Your task to perform on an android device: Search for Italian restaurants on Maps Image 0: 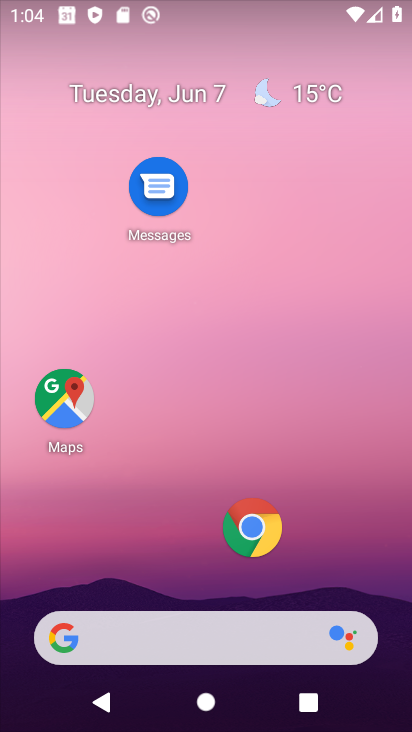
Step 0: click (65, 399)
Your task to perform on an android device: Search for Italian restaurants on Maps Image 1: 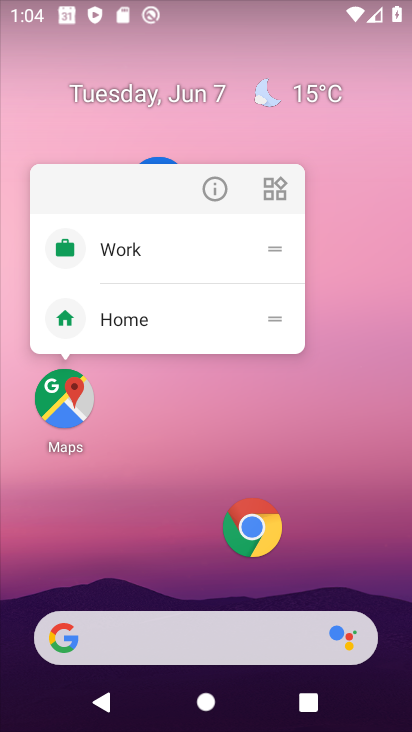
Step 1: click (65, 399)
Your task to perform on an android device: Search for Italian restaurants on Maps Image 2: 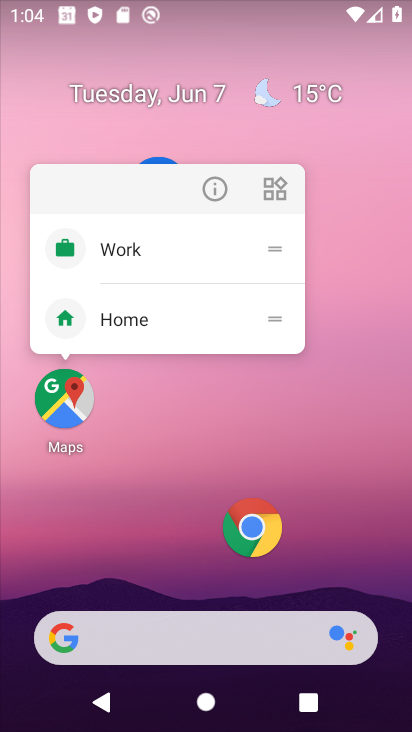
Step 2: click (68, 415)
Your task to perform on an android device: Search for Italian restaurants on Maps Image 3: 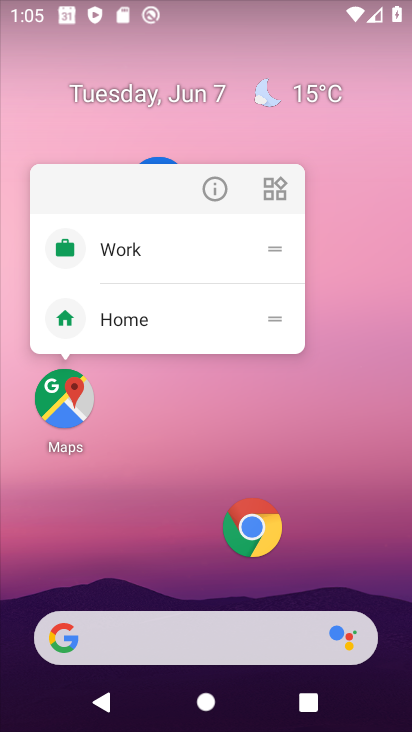
Step 3: click (68, 406)
Your task to perform on an android device: Search for Italian restaurants on Maps Image 4: 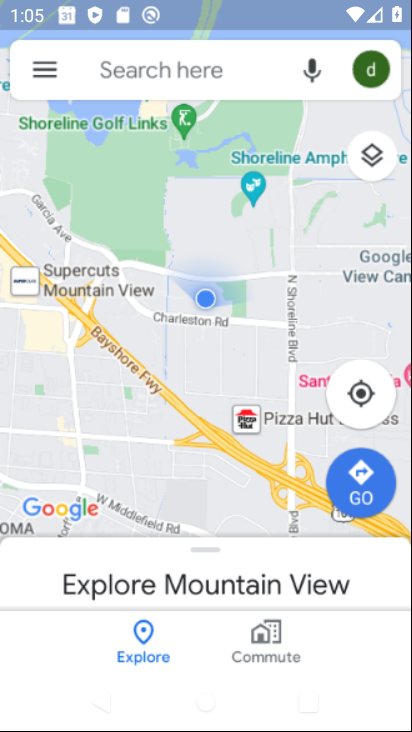
Step 4: click (148, 74)
Your task to perform on an android device: Search for Italian restaurants on Maps Image 5: 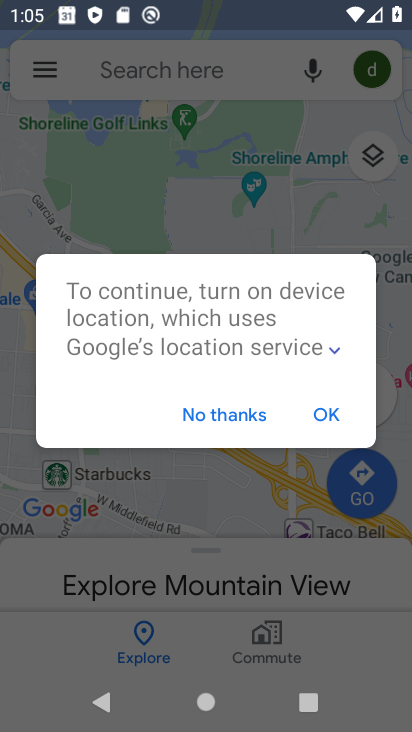
Step 5: click (319, 421)
Your task to perform on an android device: Search for Italian restaurants on Maps Image 6: 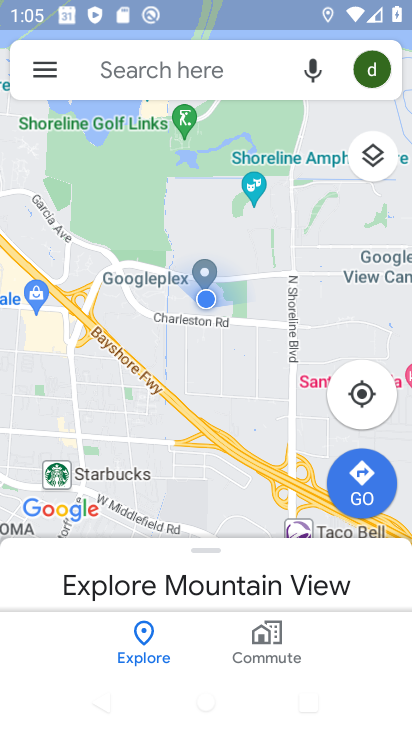
Step 6: click (200, 75)
Your task to perform on an android device: Search for Italian restaurants on Maps Image 7: 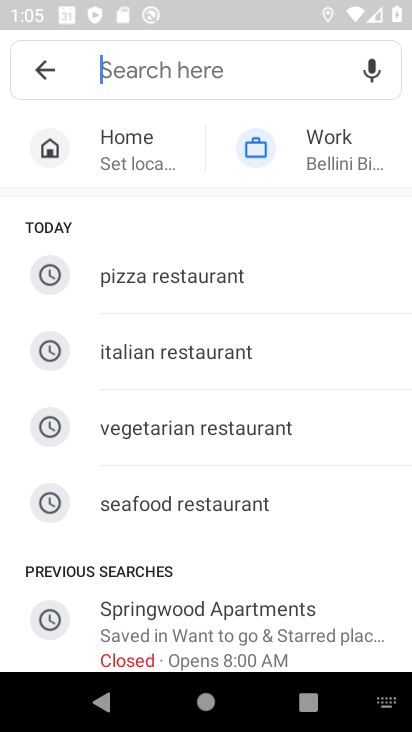
Step 7: click (154, 351)
Your task to perform on an android device: Search for Italian restaurants on Maps Image 8: 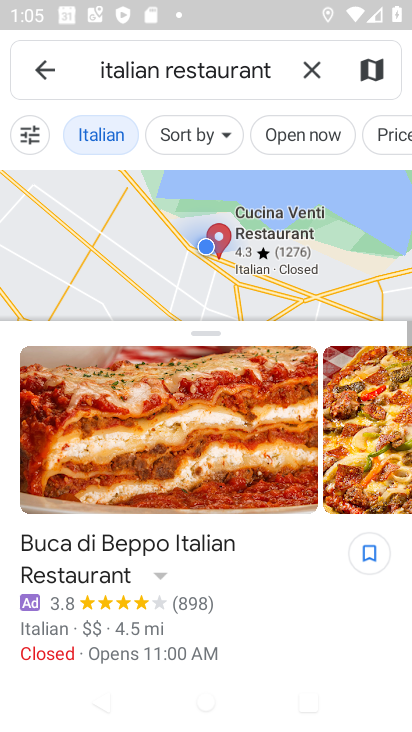
Step 8: task complete